Your task to perform on an android device: turn off javascript in the chrome app Image 0: 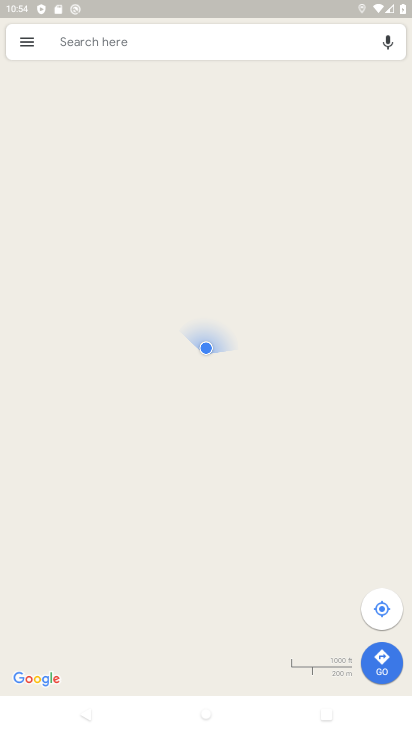
Step 0: press home button
Your task to perform on an android device: turn off javascript in the chrome app Image 1: 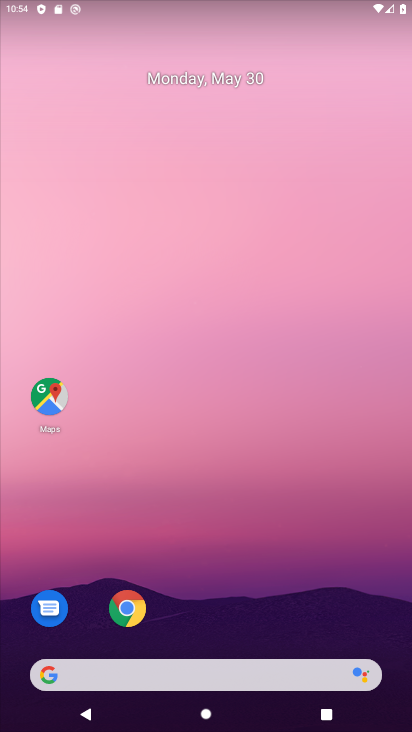
Step 1: click (123, 618)
Your task to perform on an android device: turn off javascript in the chrome app Image 2: 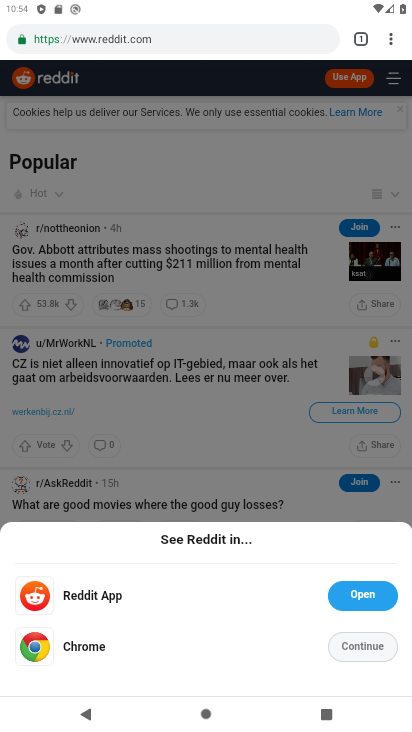
Step 2: click (391, 39)
Your task to perform on an android device: turn off javascript in the chrome app Image 3: 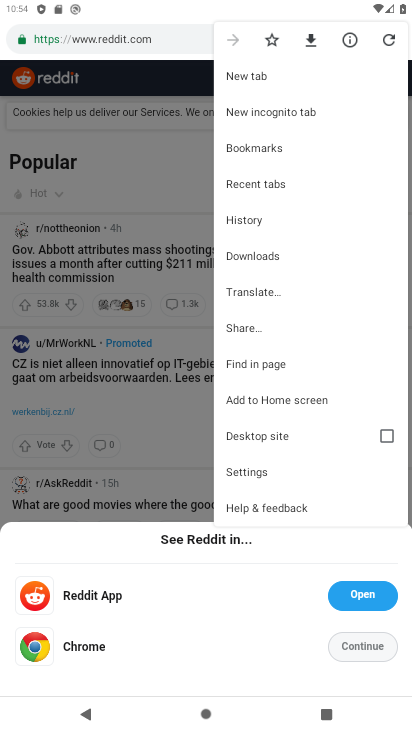
Step 3: click (253, 476)
Your task to perform on an android device: turn off javascript in the chrome app Image 4: 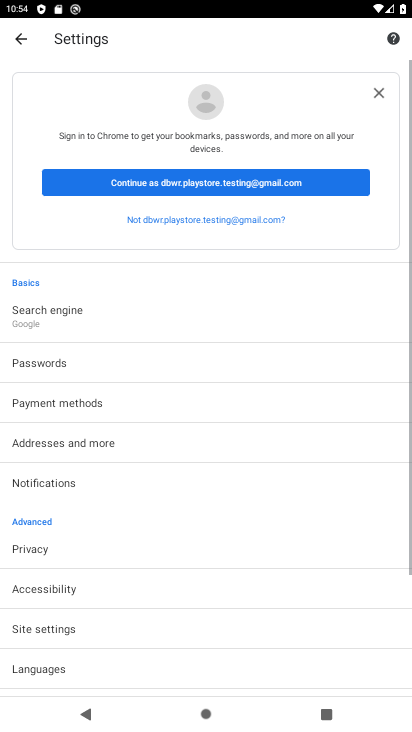
Step 4: click (43, 626)
Your task to perform on an android device: turn off javascript in the chrome app Image 5: 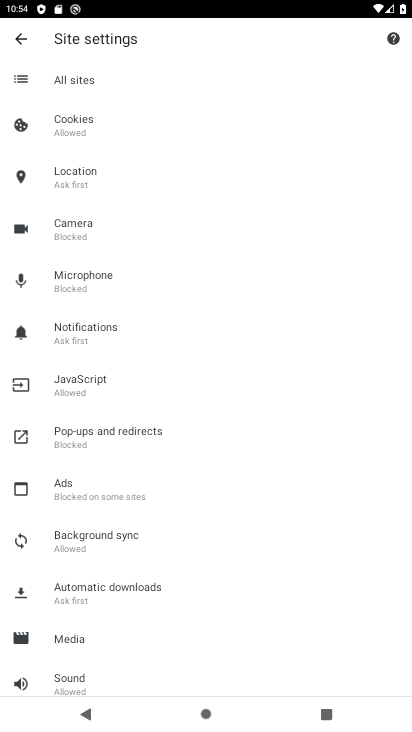
Step 5: click (81, 384)
Your task to perform on an android device: turn off javascript in the chrome app Image 6: 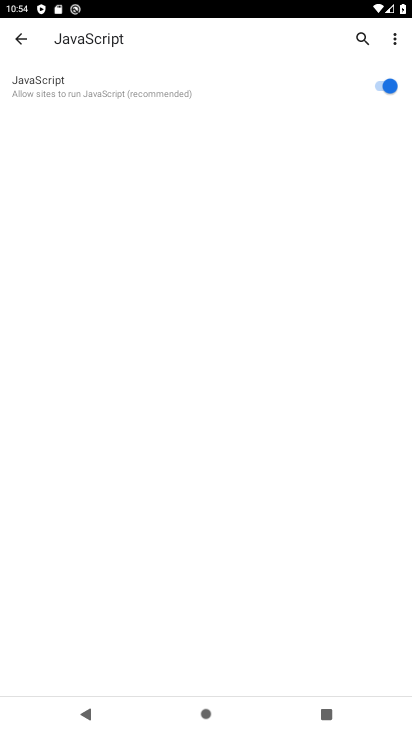
Step 6: click (387, 87)
Your task to perform on an android device: turn off javascript in the chrome app Image 7: 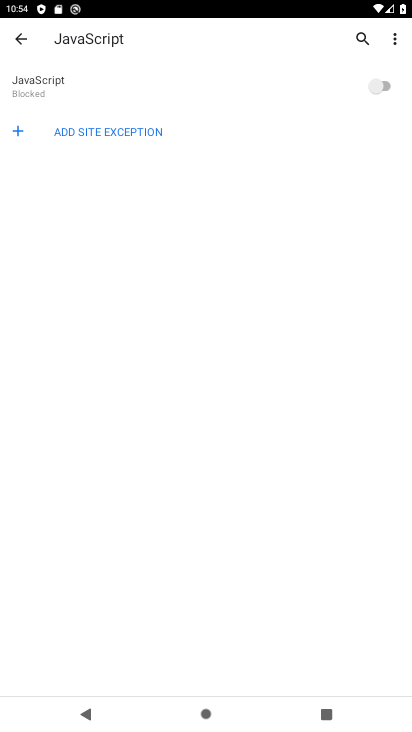
Step 7: task complete